Your task to perform on an android device: Open settings Image 0: 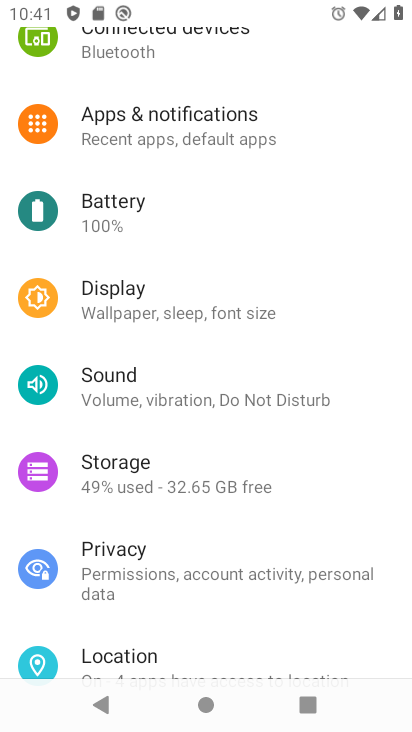
Step 0: press home button
Your task to perform on an android device: Open settings Image 1: 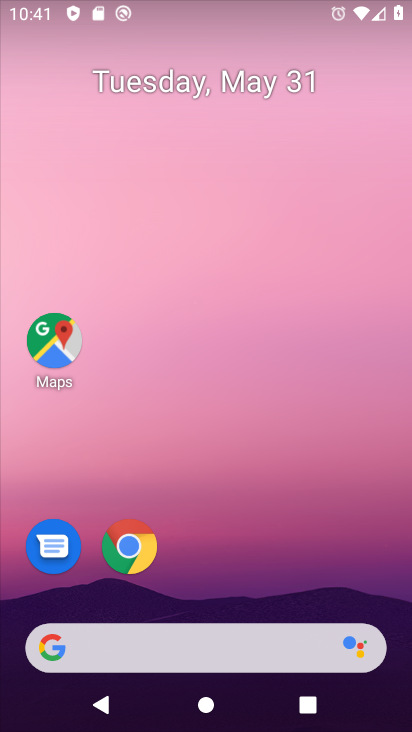
Step 1: drag from (145, 702) to (147, 59)
Your task to perform on an android device: Open settings Image 2: 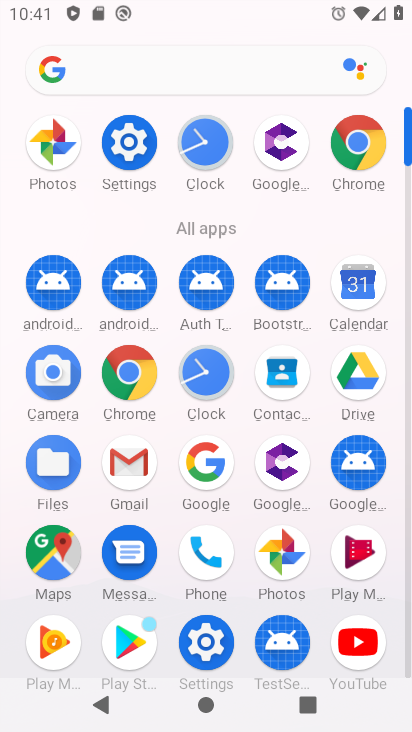
Step 2: click (122, 151)
Your task to perform on an android device: Open settings Image 3: 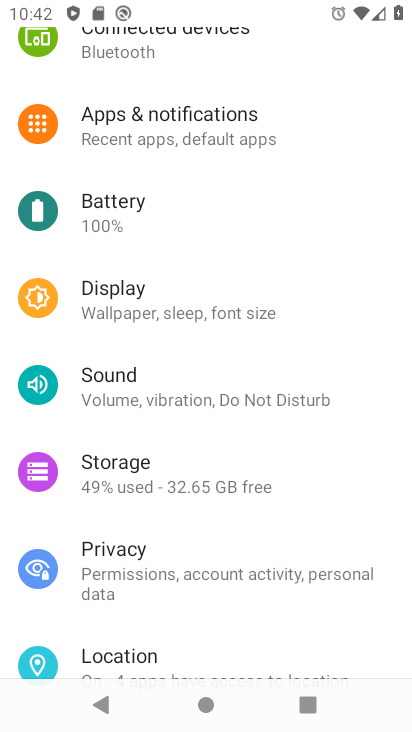
Step 3: task complete